Your task to perform on an android device: Find coffee shops on Maps Image 0: 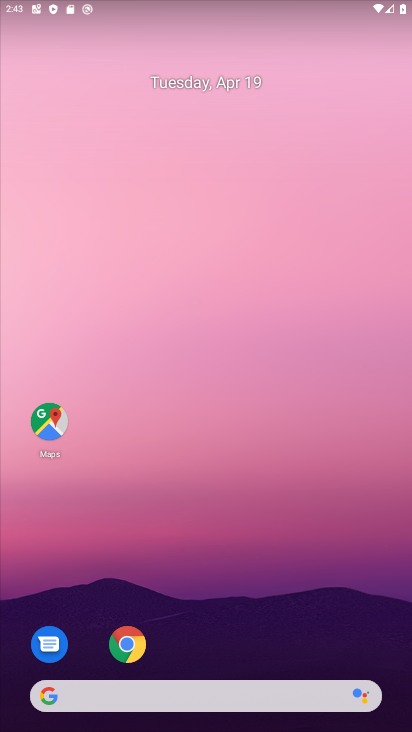
Step 0: drag from (266, 436) to (207, 97)
Your task to perform on an android device: Find coffee shops on Maps Image 1: 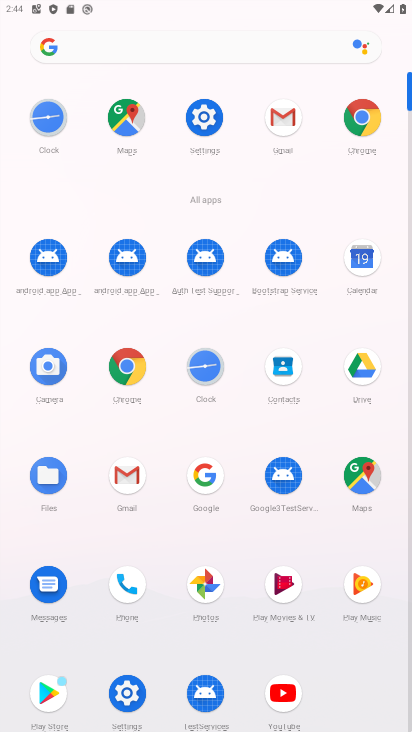
Step 1: click (349, 477)
Your task to perform on an android device: Find coffee shops on Maps Image 2: 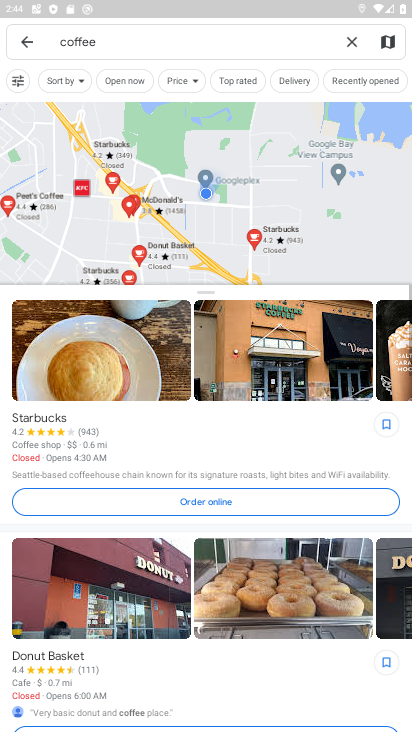
Step 2: click (161, 39)
Your task to perform on an android device: Find coffee shops on Maps Image 3: 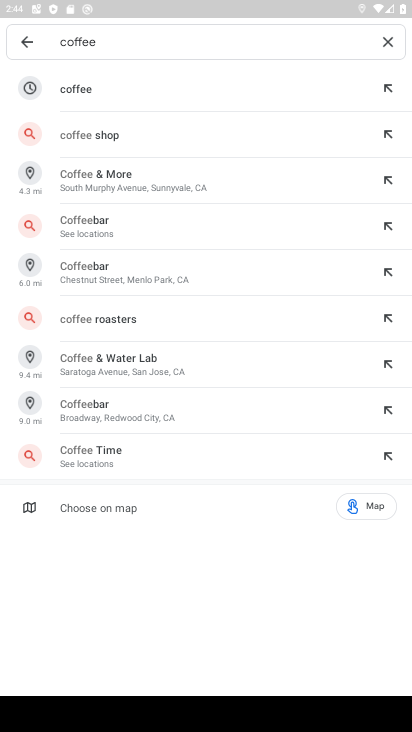
Step 3: type " shops"
Your task to perform on an android device: Find coffee shops on Maps Image 4: 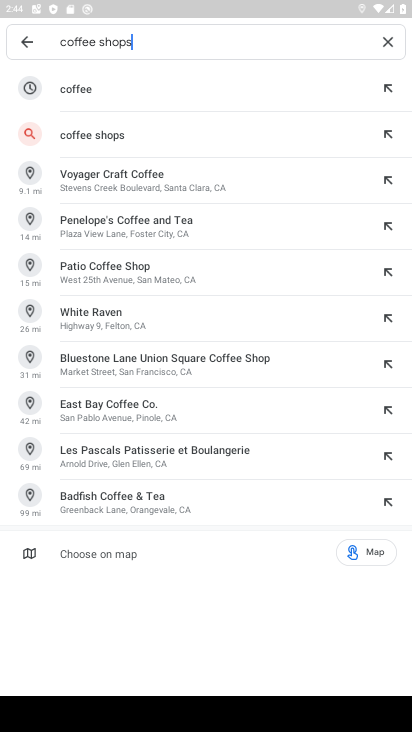
Step 4: click (79, 131)
Your task to perform on an android device: Find coffee shops on Maps Image 5: 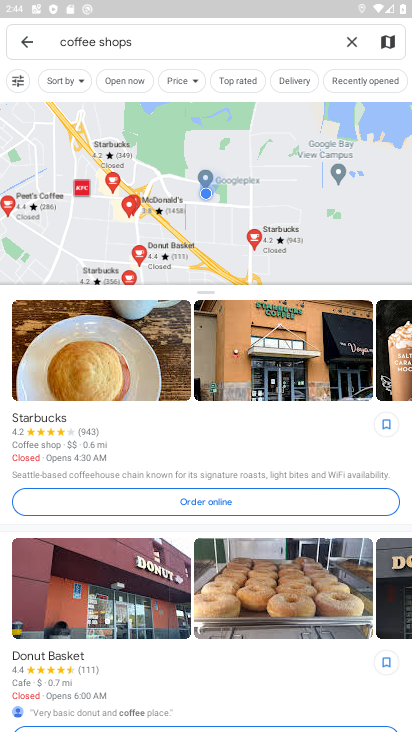
Step 5: task complete